Your task to perform on an android device: turn off translation in the chrome app Image 0: 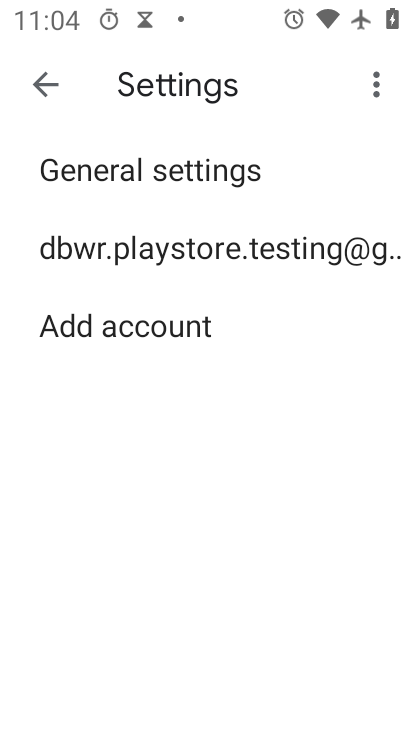
Step 0: press home button
Your task to perform on an android device: turn off translation in the chrome app Image 1: 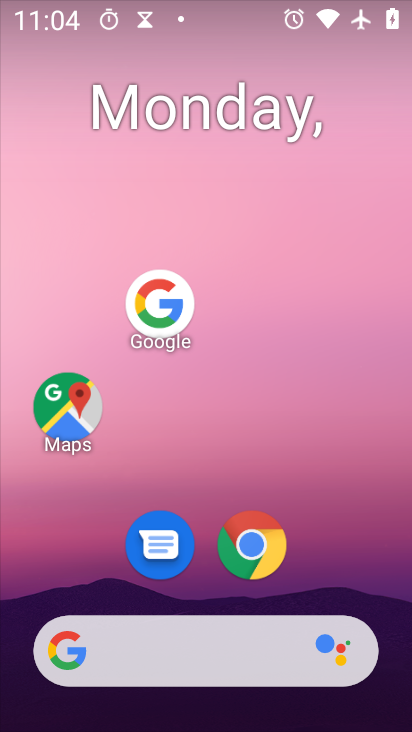
Step 1: drag from (185, 663) to (334, 108)
Your task to perform on an android device: turn off translation in the chrome app Image 2: 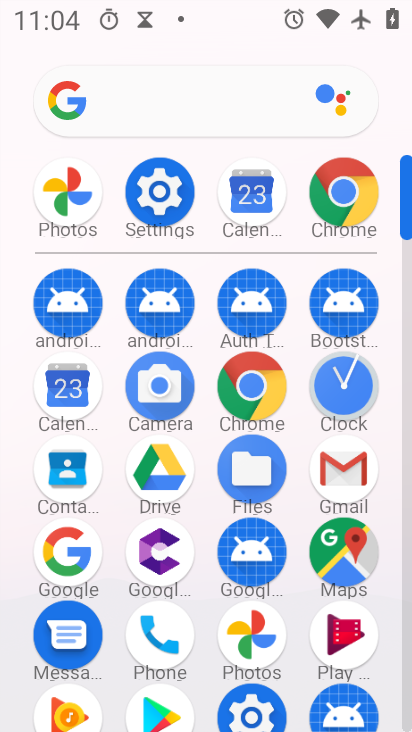
Step 2: click (345, 201)
Your task to perform on an android device: turn off translation in the chrome app Image 3: 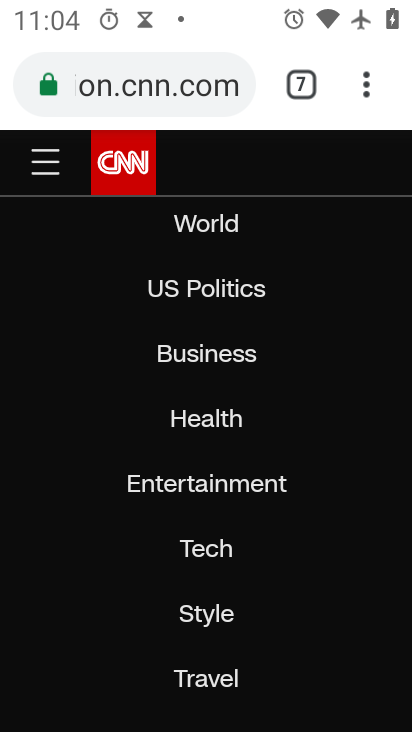
Step 3: drag from (365, 94) to (193, 603)
Your task to perform on an android device: turn off translation in the chrome app Image 4: 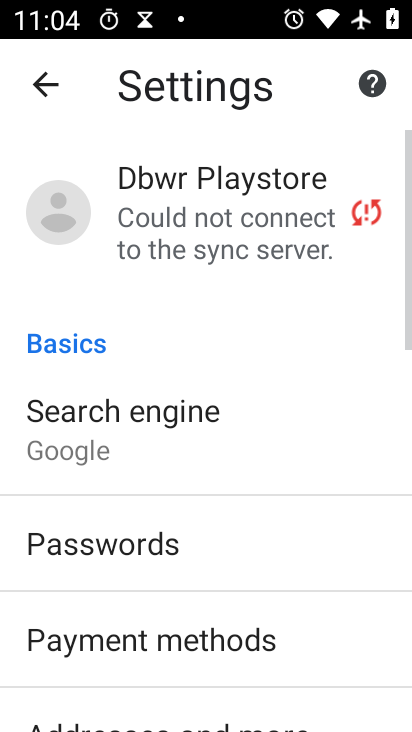
Step 4: drag from (200, 684) to (300, 285)
Your task to perform on an android device: turn off translation in the chrome app Image 5: 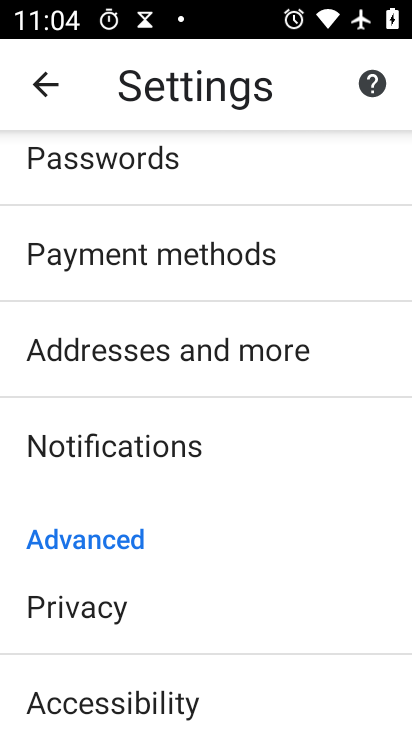
Step 5: drag from (202, 665) to (287, 173)
Your task to perform on an android device: turn off translation in the chrome app Image 6: 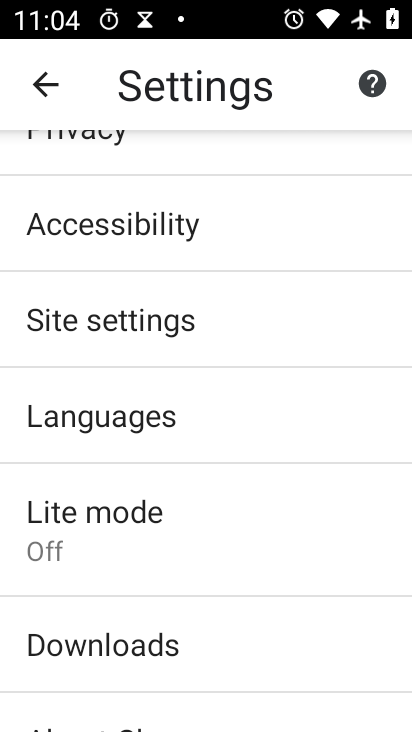
Step 6: drag from (204, 649) to (259, 356)
Your task to perform on an android device: turn off translation in the chrome app Image 7: 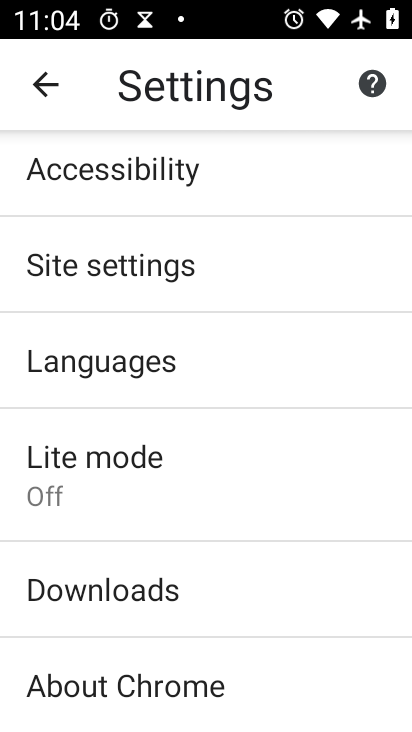
Step 7: click (195, 352)
Your task to perform on an android device: turn off translation in the chrome app Image 8: 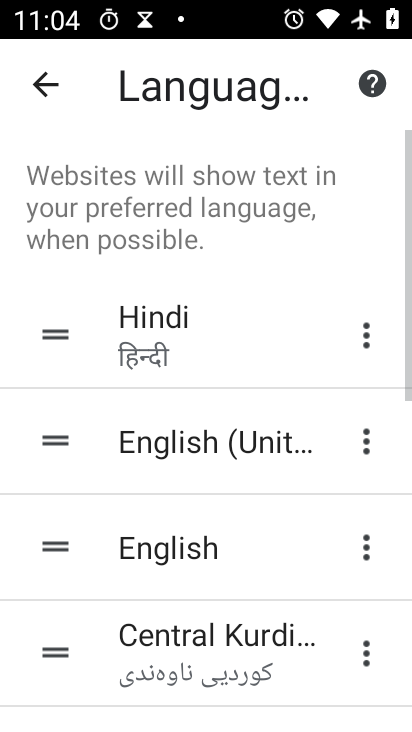
Step 8: drag from (288, 637) to (385, 191)
Your task to perform on an android device: turn off translation in the chrome app Image 9: 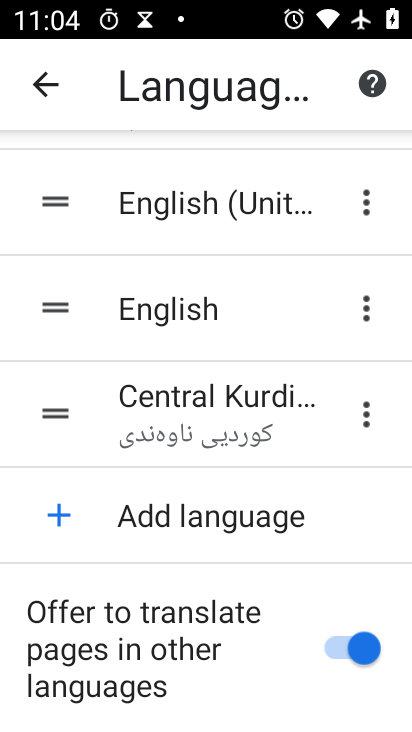
Step 9: drag from (323, 662) to (361, 354)
Your task to perform on an android device: turn off translation in the chrome app Image 10: 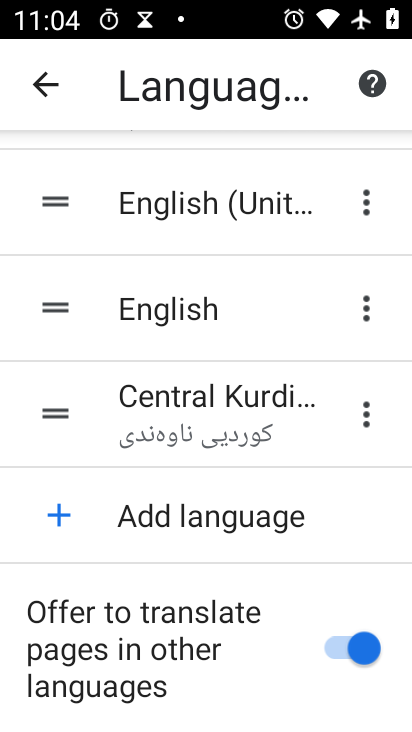
Step 10: click (332, 643)
Your task to perform on an android device: turn off translation in the chrome app Image 11: 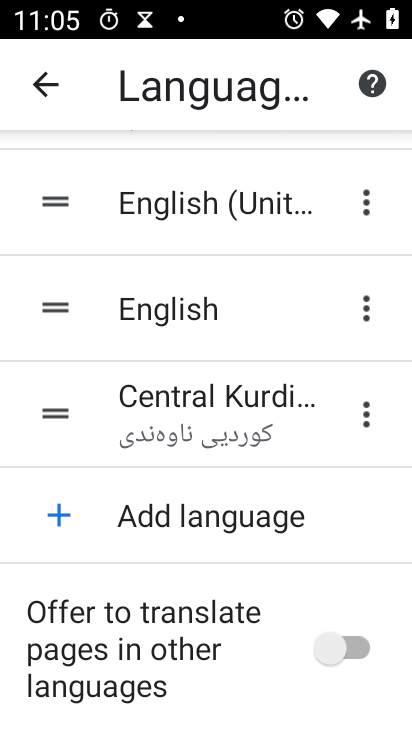
Step 11: task complete